Your task to perform on an android device: Open the stopwatch Image 0: 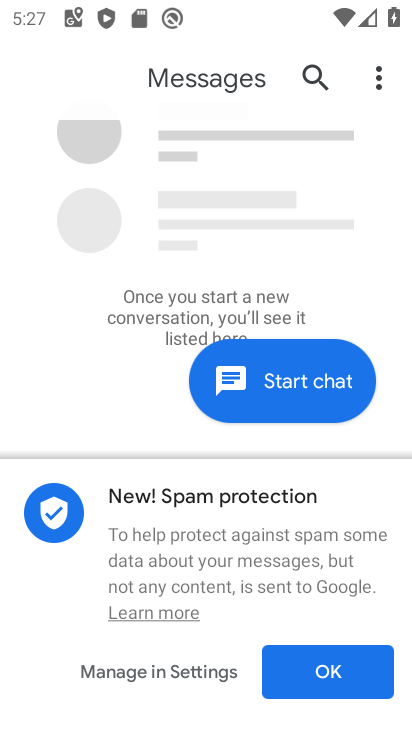
Step 0: press home button
Your task to perform on an android device: Open the stopwatch Image 1: 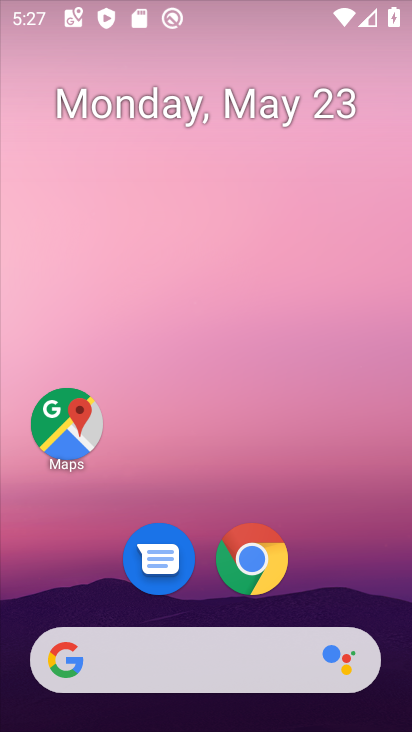
Step 1: drag from (96, 595) to (171, 51)
Your task to perform on an android device: Open the stopwatch Image 2: 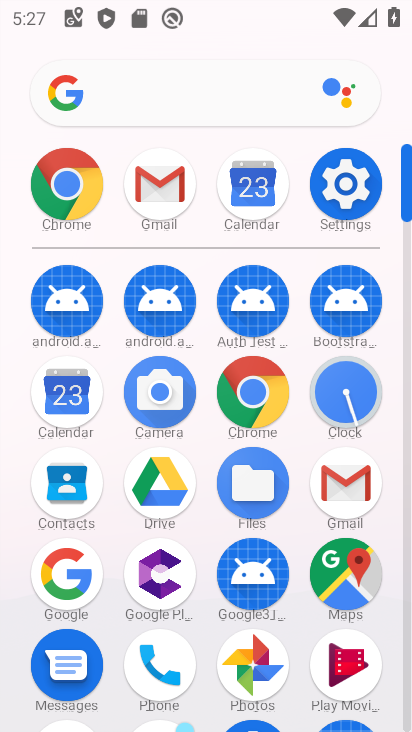
Step 2: click (352, 399)
Your task to perform on an android device: Open the stopwatch Image 3: 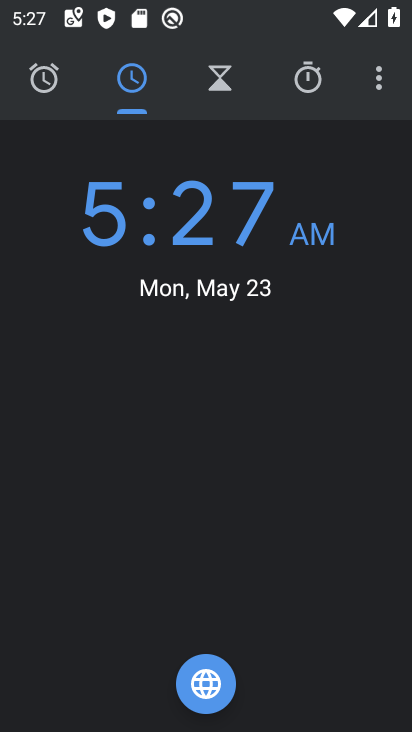
Step 3: click (303, 90)
Your task to perform on an android device: Open the stopwatch Image 4: 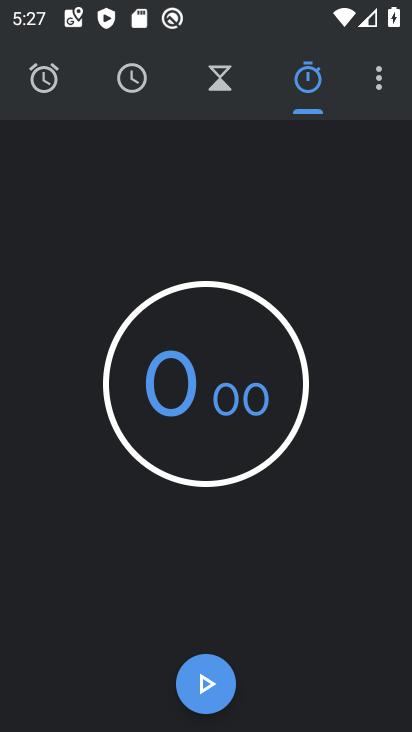
Step 4: task complete